Your task to perform on an android device: Go to CNN.com Image 0: 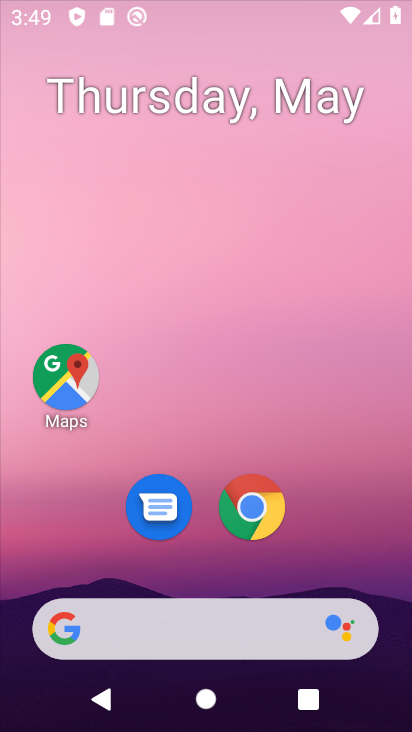
Step 0: drag from (357, 625) to (176, 204)
Your task to perform on an android device: Go to CNN.com Image 1: 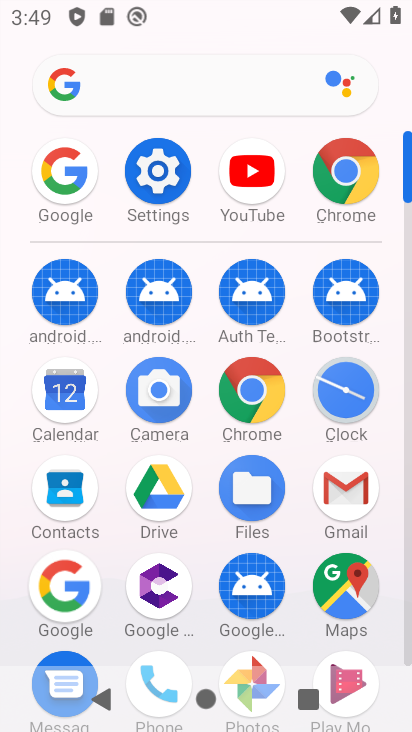
Step 1: click (340, 158)
Your task to perform on an android device: Go to CNN.com Image 2: 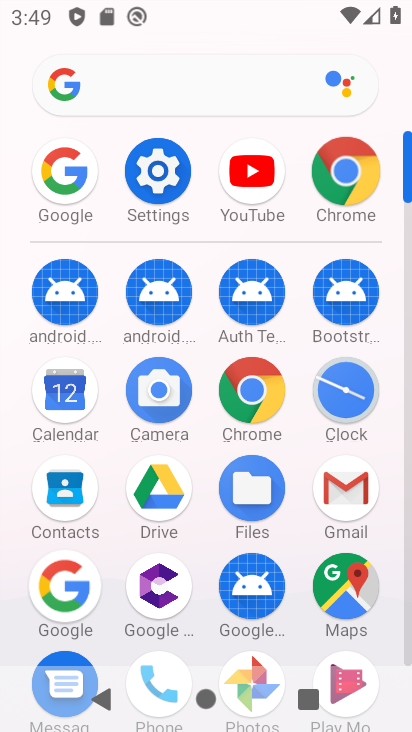
Step 2: click (340, 158)
Your task to perform on an android device: Go to CNN.com Image 3: 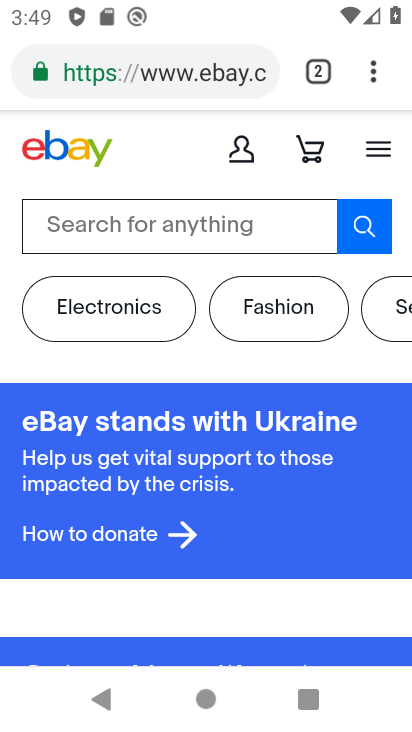
Step 3: click (373, 63)
Your task to perform on an android device: Go to CNN.com Image 4: 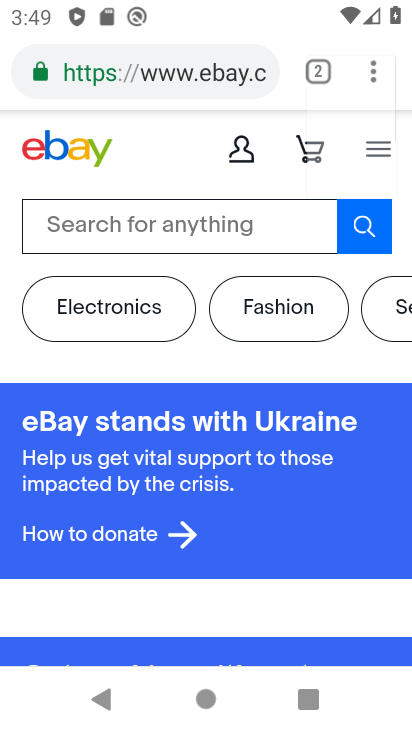
Step 4: click (372, 64)
Your task to perform on an android device: Go to CNN.com Image 5: 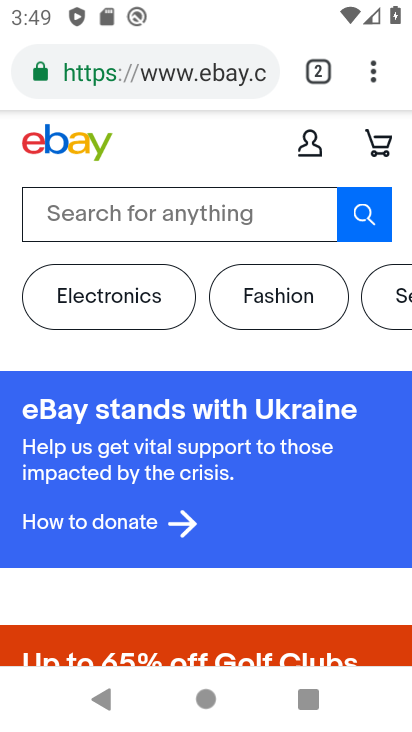
Step 5: click (377, 67)
Your task to perform on an android device: Go to CNN.com Image 6: 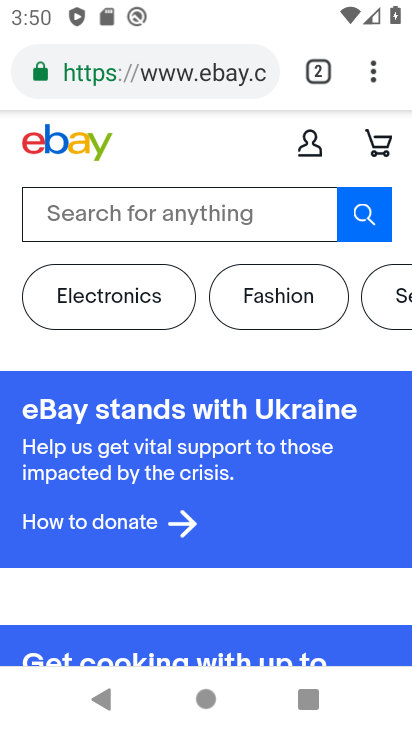
Step 6: click (373, 71)
Your task to perform on an android device: Go to CNN.com Image 7: 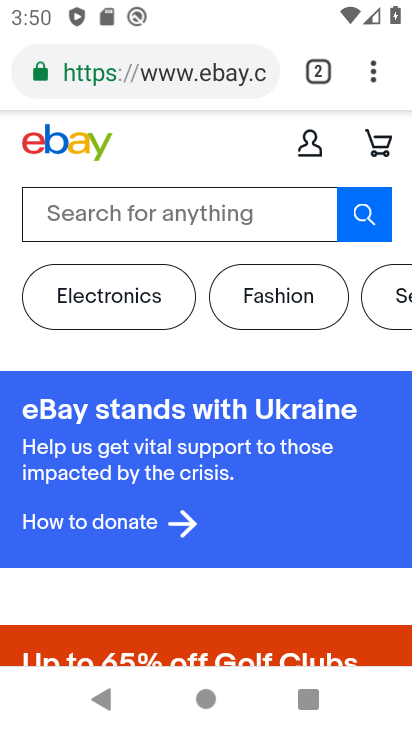
Step 7: drag from (372, 76) to (129, 511)
Your task to perform on an android device: Go to CNN.com Image 8: 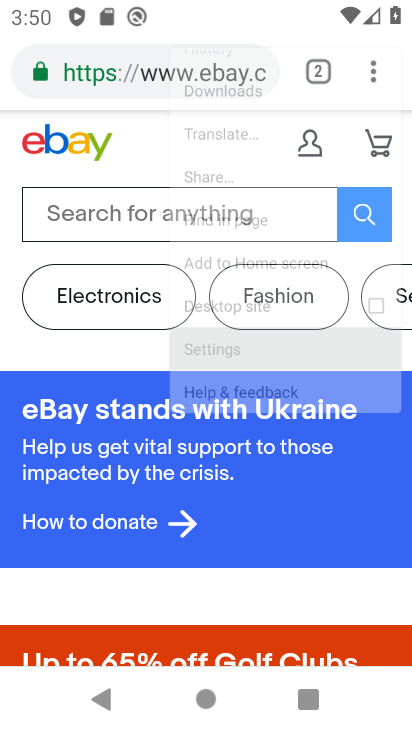
Step 8: click (124, 498)
Your task to perform on an android device: Go to CNN.com Image 9: 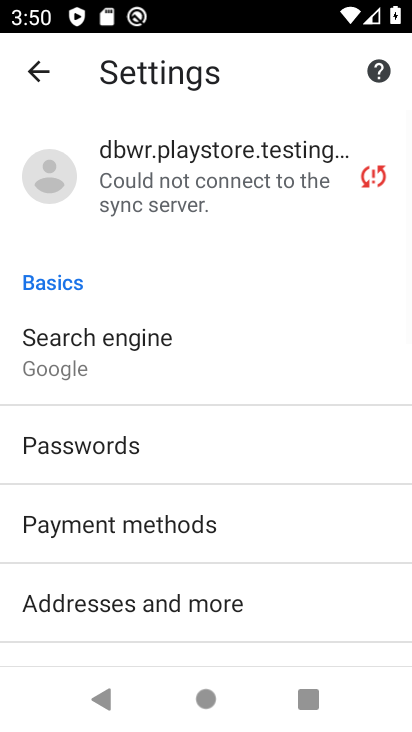
Step 9: task complete